Your task to perform on an android device: Go to CNN.com Image 0: 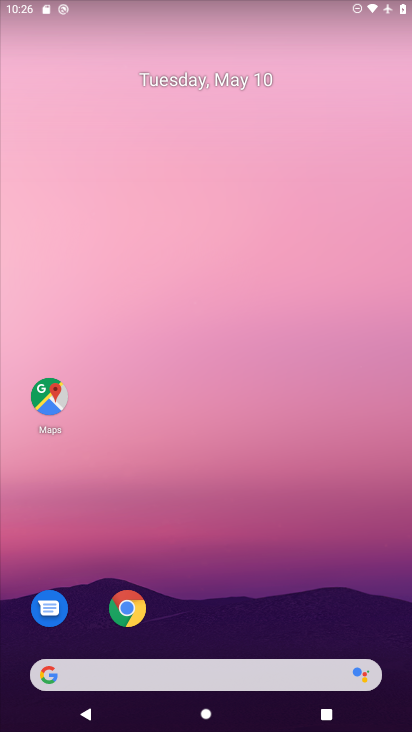
Step 0: drag from (222, 589) to (235, 235)
Your task to perform on an android device: Go to CNN.com Image 1: 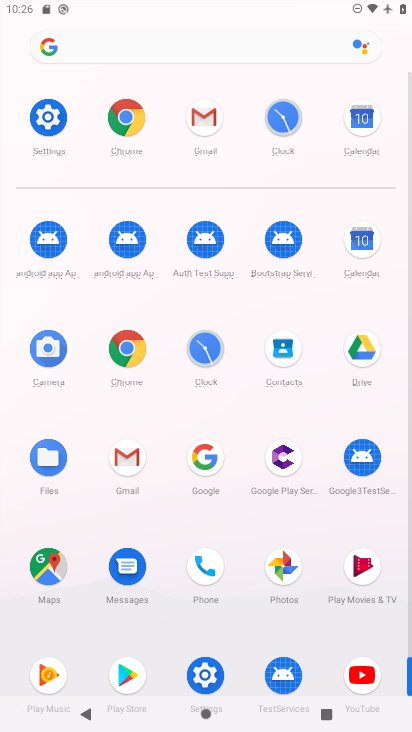
Step 1: click (116, 110)
Your task to perform on an android device: Go to CNN.com Image 2: 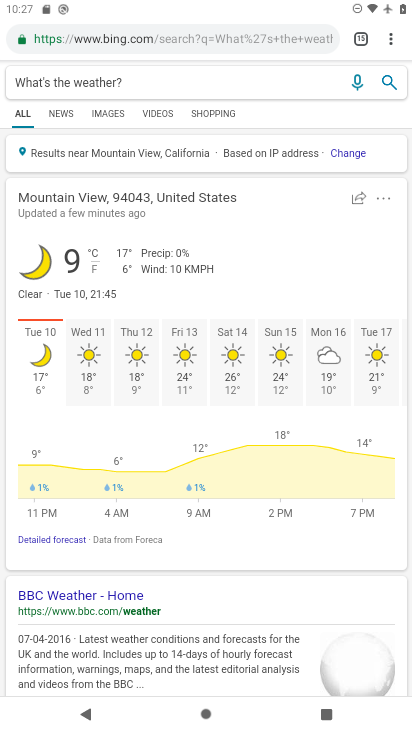
Step 2: click (378, 37)
Your task to perform on an android device: Go to CNN.com Image 3: 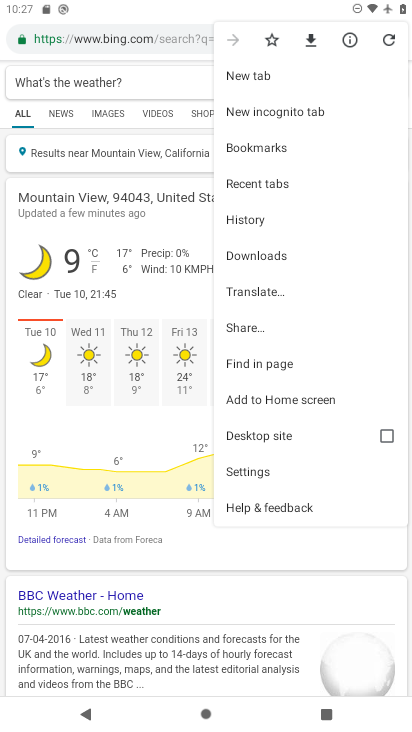
Step 3: click (271, 74)
Your task to perform on an android device: Go to CNN.com Image 4: 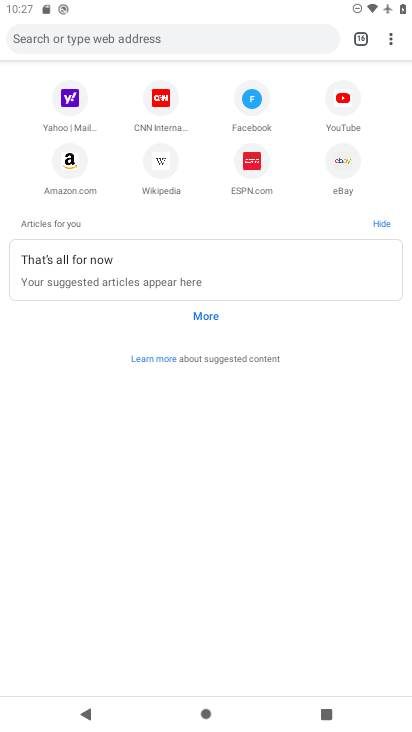
Step 4: click (156, 95)
Your task to perform on an android device: Go to CNN.com Image 5: 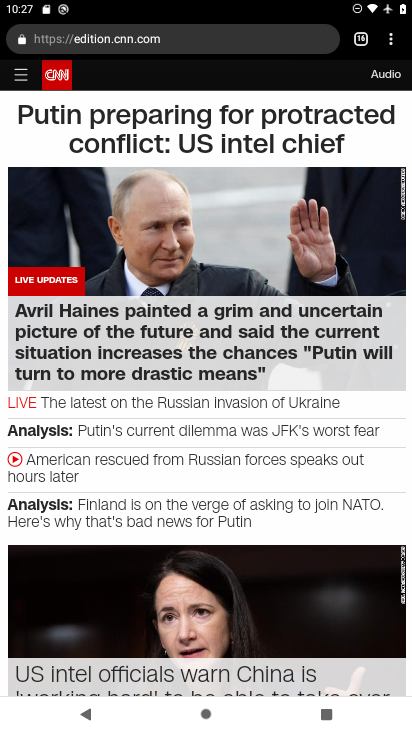
Step 5: task complete